Your task to perform on an android device: toggle notifications settings in the gmail app Image 0: 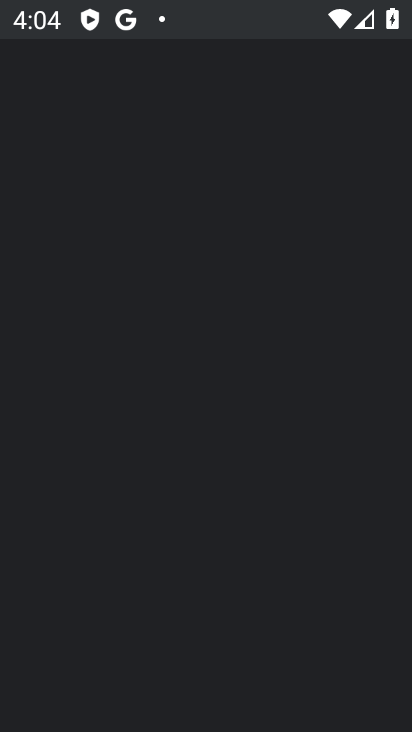
Step 0: drag from (328, 514) to (381, 364)
Your task to perform on an android device: toggle notifications settings in the gmail app Image 1: 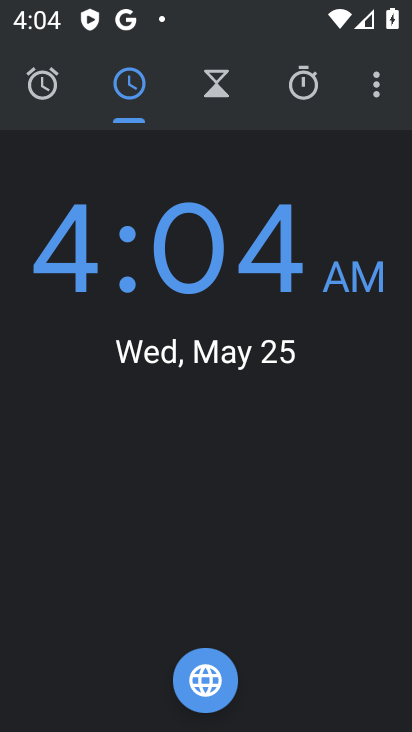
Step 1: press home button
Your task to perform on an android device: toggle notifications settings in the gmail app Image 2: 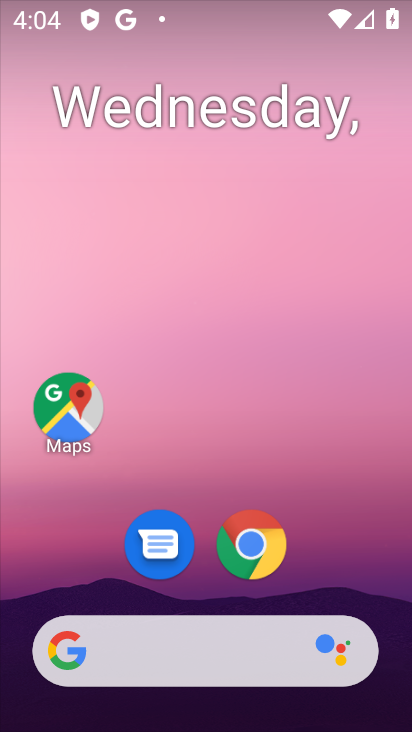
Step 2: drag from (374, 582) to (379, 270)
Your task to perform on an android device: toggle notifications settings in the gmail app Image 3: 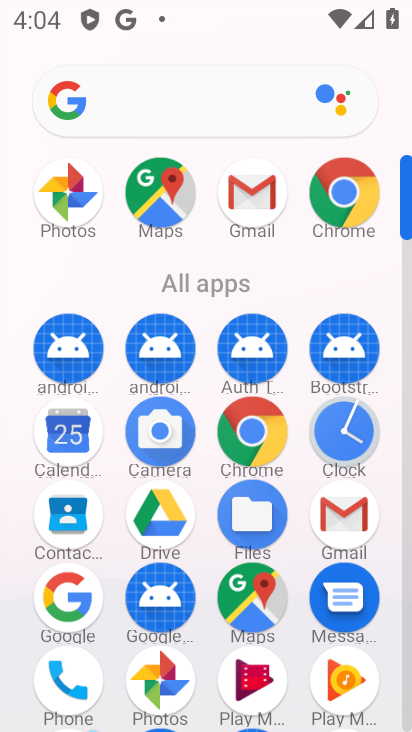
Step 3: click (356, 519)
Your task to perform on an android device: toggle notifications settings in the gmail app Image 4: 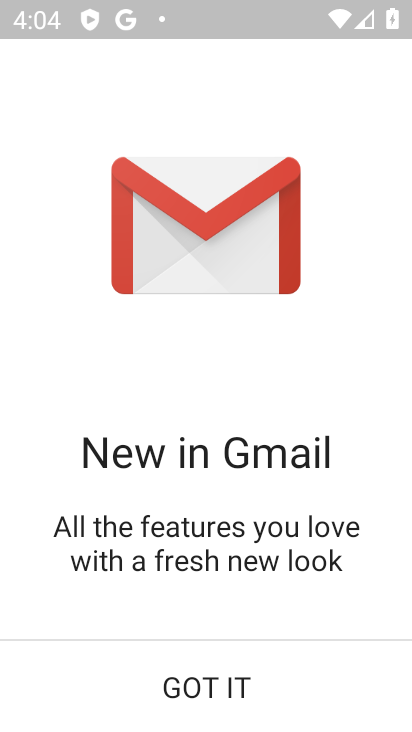
Step 4: click (252, 679)
Your task to perform on an android device: toggle notifications settings in the gmail app Image 5: 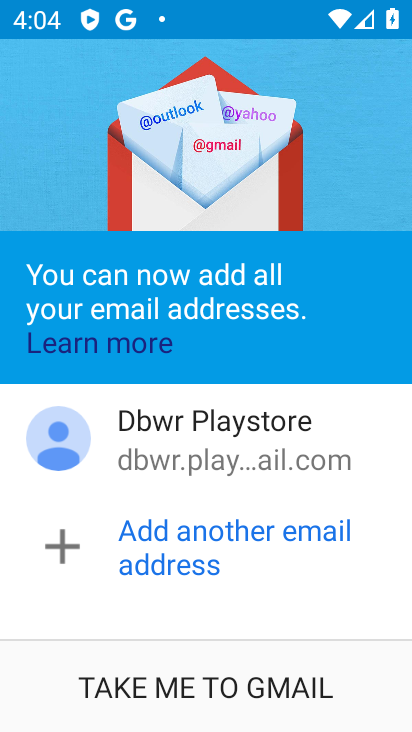
Step 5: click (252, 680)
Your task to perform on an android device: toggle notifications settings in the gmail app Image 6: 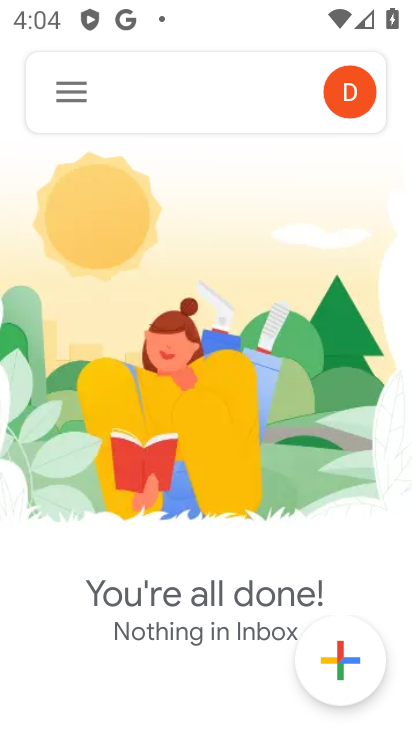
Step 6: click (61, 88)
Your task to perform on an android device: toggle notifications settings in the gmail app Image 7: 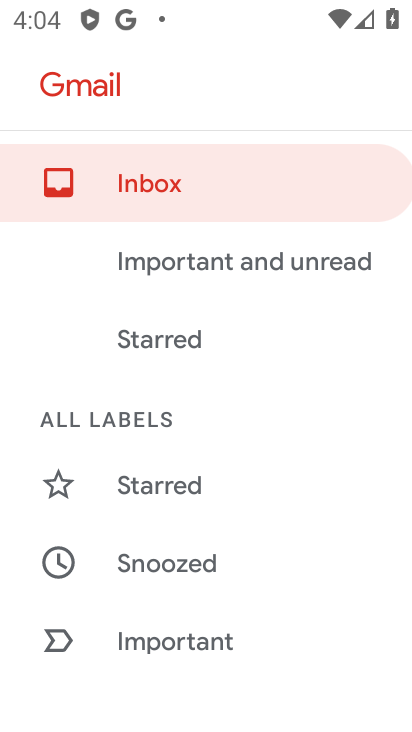
Step 7: drag from (323, 454) to (317, 392)
Your task to perform on an android device: toggle notifications settings in the gmail app Image 8: 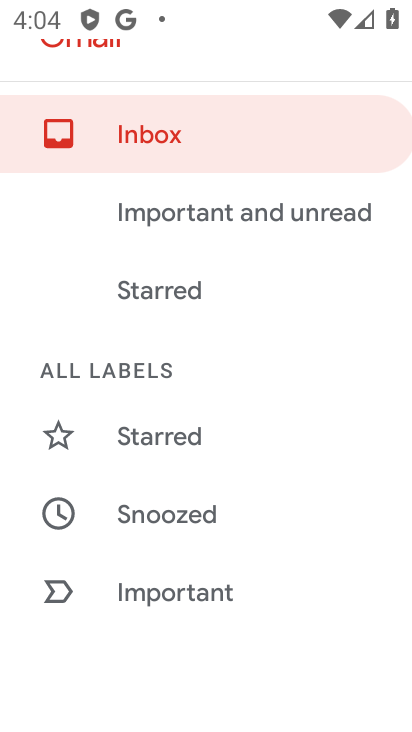
Step 8: drag from (333, 522) to (333, 403)
Your task to perform on an android device: toggle notifications settings in the gmail app Image 9: 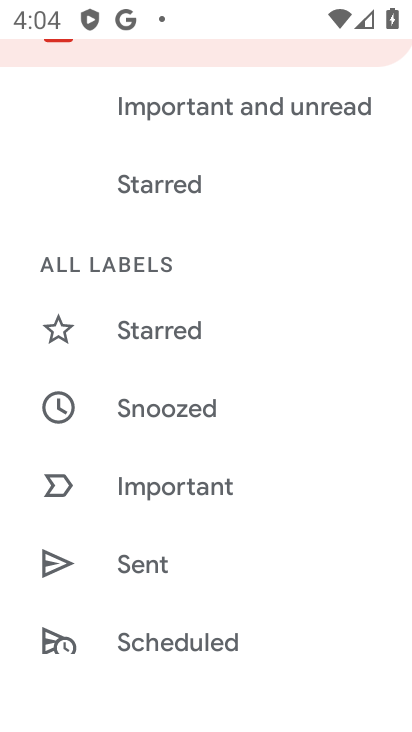
Step 9: drag from (326, 564) to (328, 450)
Your task to perform on an android device: toggle notifications settings in the gmail app Image 10: 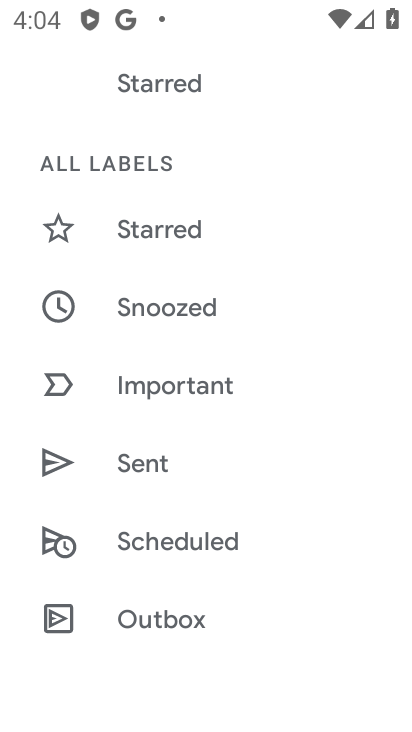
Step 10: drag from (321, 584) to (304, 459)
Your task to perform on an android device: toggle notifications settings in the gmail app Image 11: 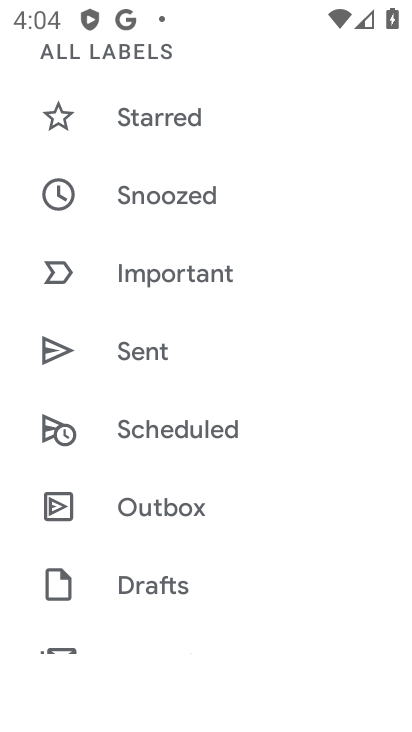
Step 11: drag from (303, 576) to (309, 452)
Your task to perform on an android device: toggle notifications settings in the gmail app Image 12: 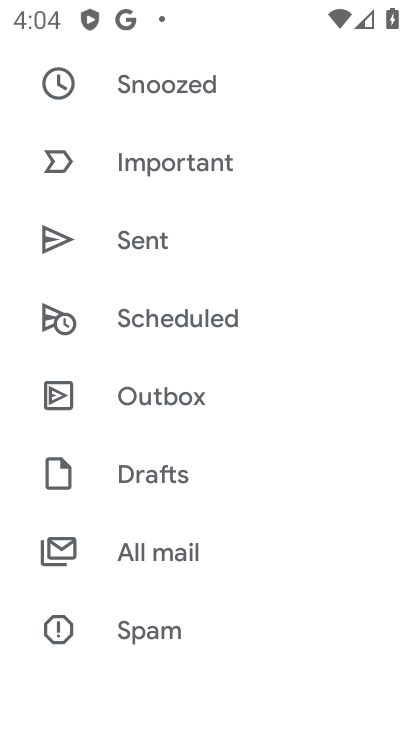
Step 12: drag from (310, 586) to (311, 479)
Your task to perform on an android device: toggle notifications settings in the gmail app Image 13: 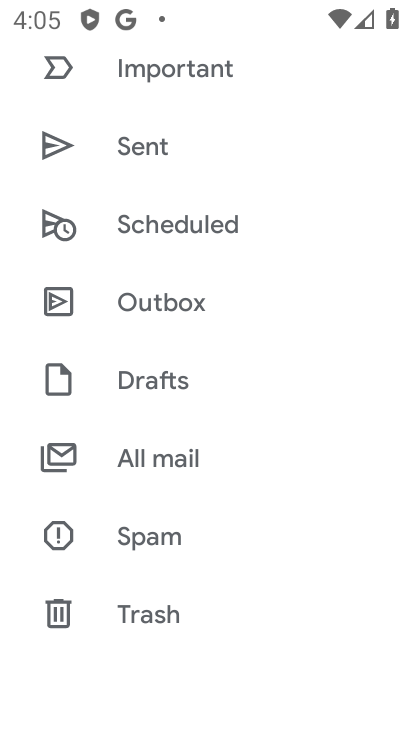
Step 13: drag from (318, 617) to (315, 496)
Your task to perform on an android device: toggle notifications settings in the gmail app Image 14: 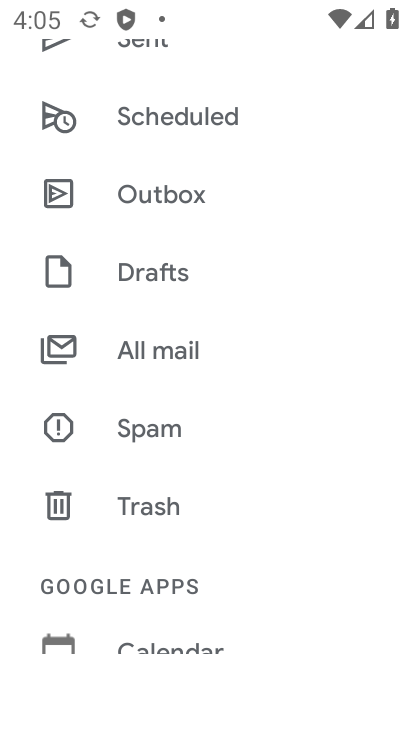
Step 14: drag from (313, 623) to (313, 478)
Your task to perform on an android device: toggle notifications settings in the gmail app Image 15: 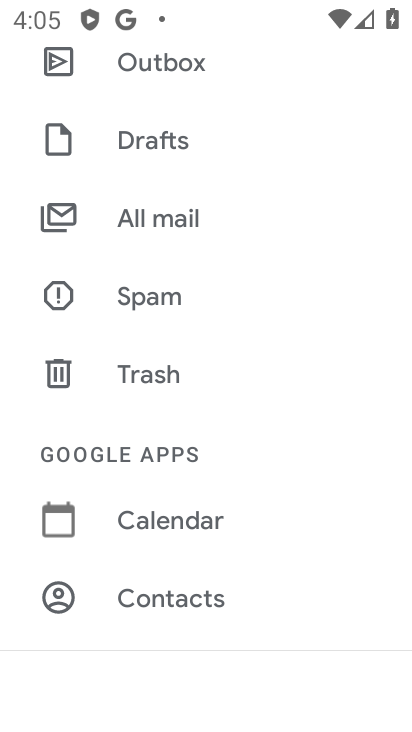
Step 15: drag from (308, 593) to (313, 459)
Your task to perform on an android device: toggle notifications settings in the gmail app Image 16: 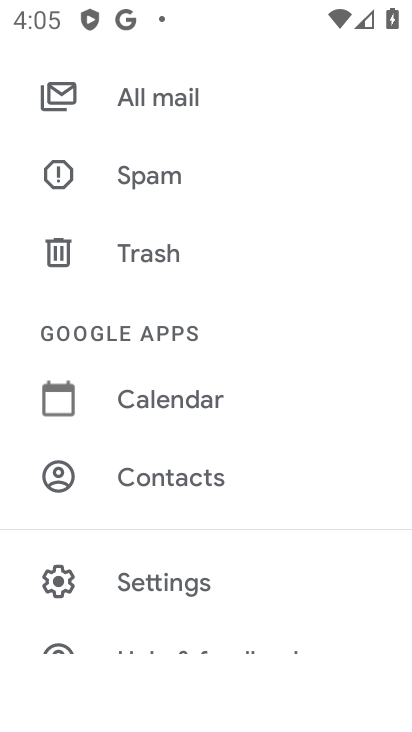
Step 16: click (247, 593)
Your task to perform on an android device: toggle notifications settings in the gmail app Image 17: 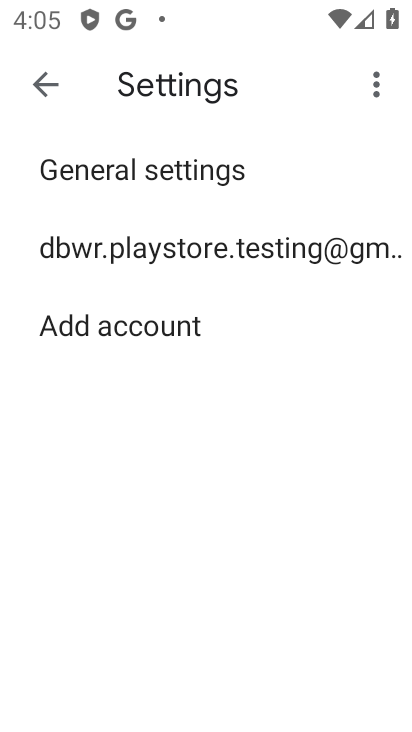
Step 17: click (338, 258)
Your task to perform on an android device: toggle notifications settings in the gmail app Image 18: 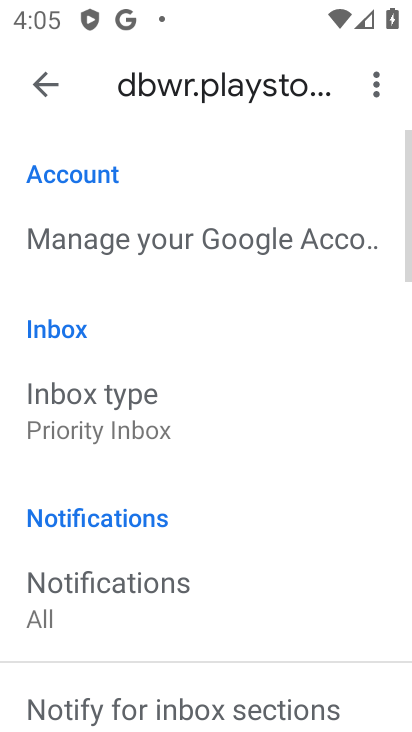
Step 18: drag from (336, 506) to (332, 421)
Your task to perform on an android device: toggle notifications settings in the gmail app Image 19: 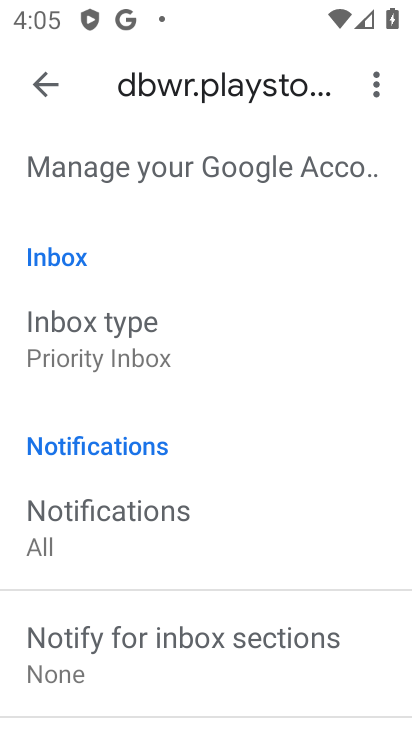
Step 19: drag from (344, 540) to (338, 452)
Your task to perform on an android device: toggle notifications settings in the gmail app Image 20: 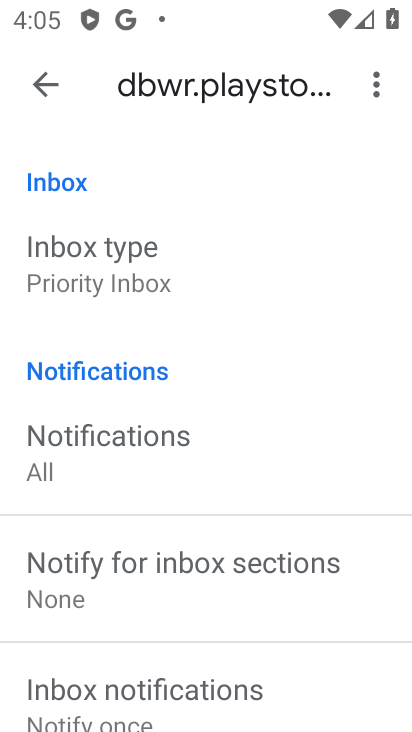
Step 20: drag from (340, 572) to (349, 472)
Your task to perform on an android device: toggle notifications settings in the gmail app Image 21: 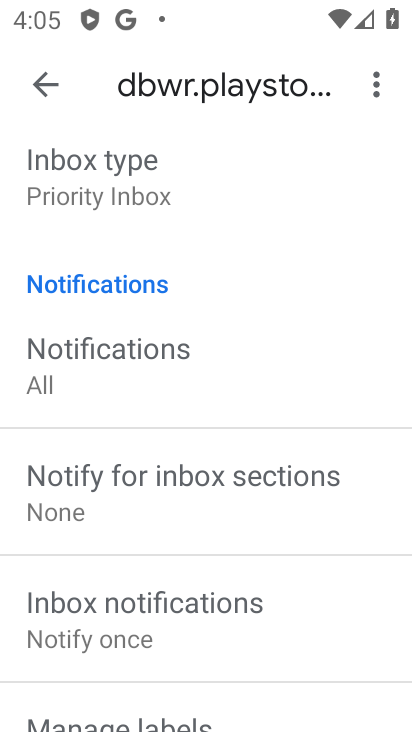
Step 21: drag from (344, 604) to (349, 492)
Your task to perform on an android device: toggle notifications settings in the gmail app Image 22: 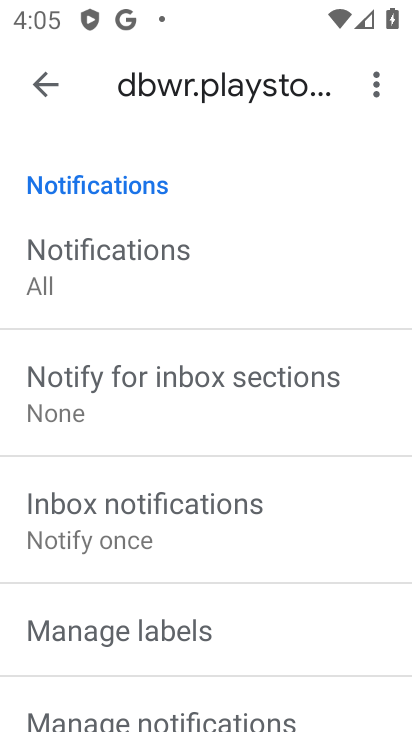
Step 22: drag from (334, 605) to (322, 480)
Your task to perform on an android device: toggle notifications settings in the gmail app Image 23: 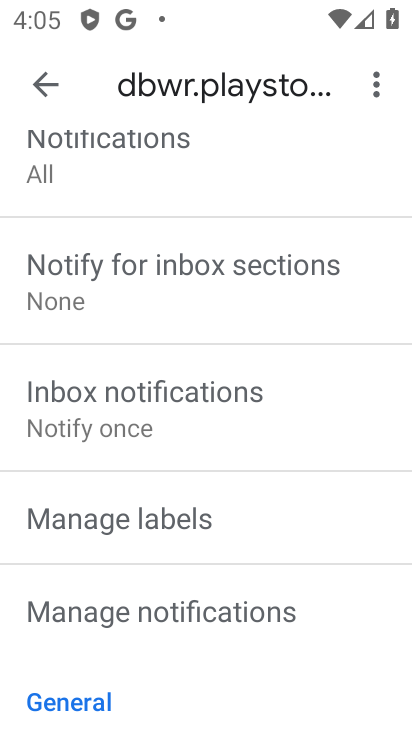
Step 23: drag from (316, 615) to (314, 482)
Your task to perform on an android device: toggle notifications settings in the gmail app Image 24: 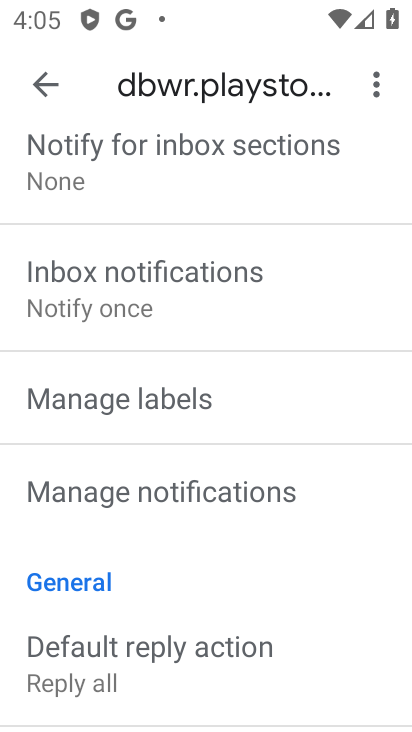
Step 24: click (308, 512)
Your task to perform on an android device: toggle notifications settings in the gmail app Image 25: 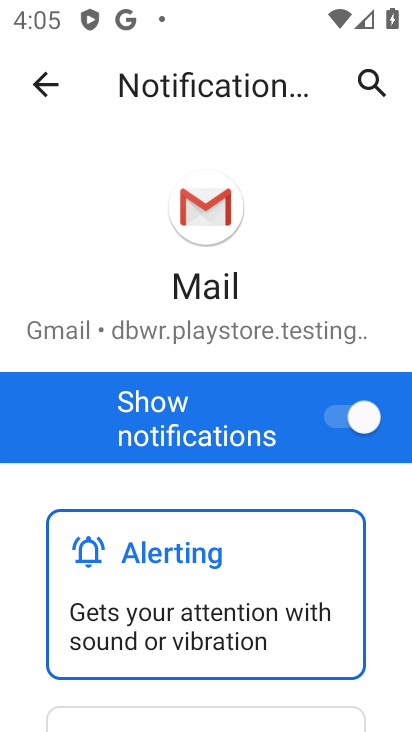
Step 25: click (359, 424)
Your task to perform on an android device: toggle notifications settings in the gmail app Image 26: 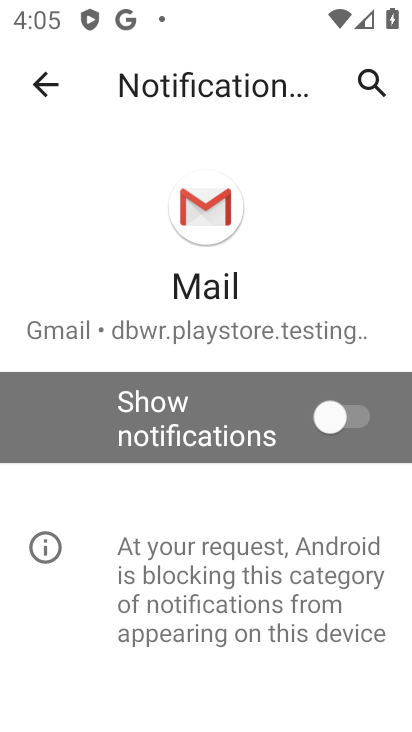
Step 26: task complete